Your task to perform on an android device: read, delete, or share a saved page in the chrome app Image 0: 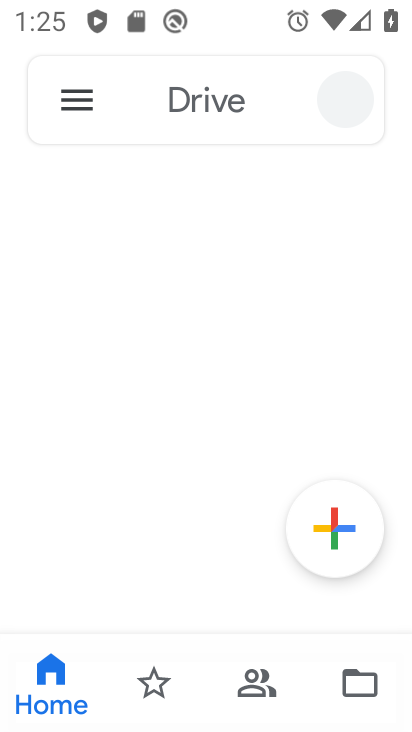
Step 0: click (251, 533)
Your task to perform on an android device: read, delete, or share a saved page in the chrome app Image 1: 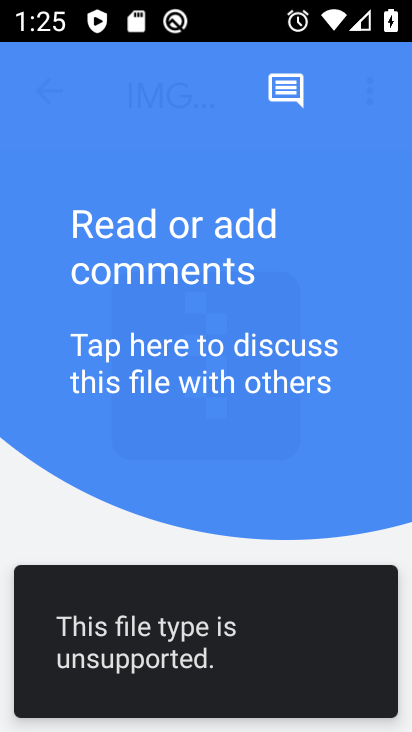
Step 1: press home button
Your task to perform on an android device: read, delete, or share a saved page in the chrome app Image 2: 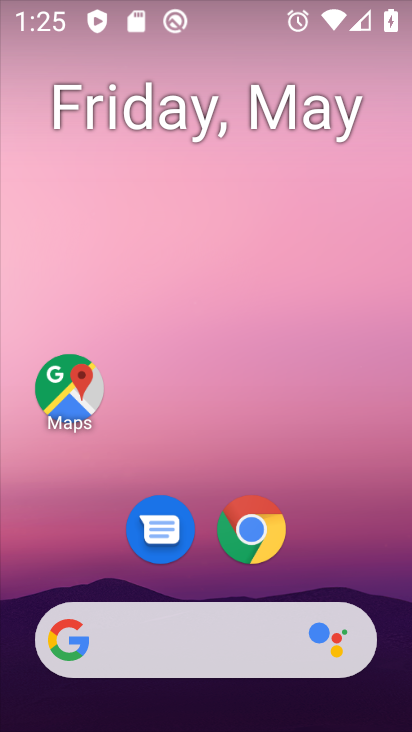
Step 2: click (248, 530)
Your task to perform on an android device: read, delete, or share a saved page in the chrome app Image 3: 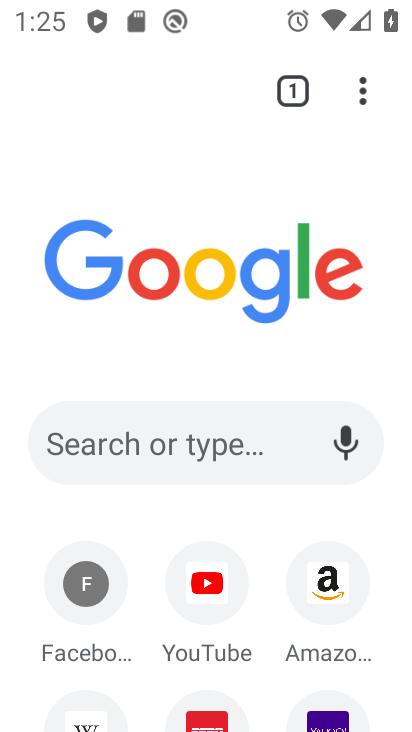
Step 3: click (361, 82)
Your task to perform on an android device: read, delete, or share a saved page in the chrome app Image 4: 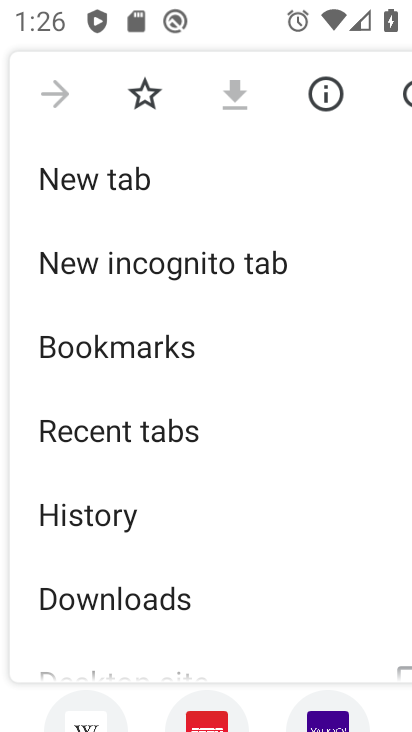
Step 4: drag from (284, 601) to (298, 427)
Your task to perform on an android device: read, delete, or share a saved page in the chrome app Image 5: 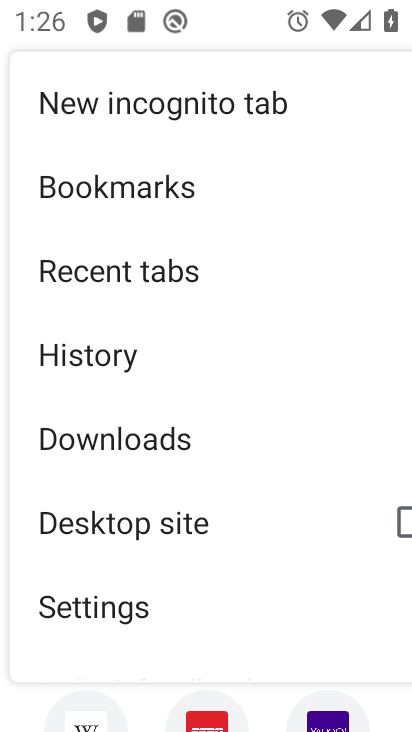
Step 5: drag from (257, 456) to (263, 401)
Your task to perform on an android device: read, delete, or share a saved page in the chrome app Image 6: 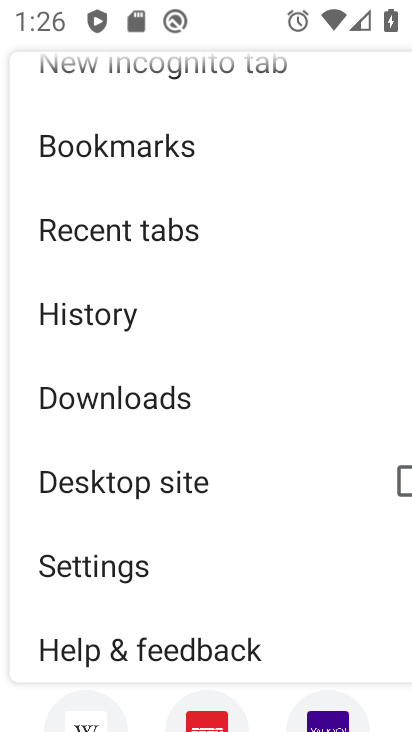
Step 6: click (88, 394)
Your task to perform on an android device: read, delete, or share a saved page in the chrome app Image 7: 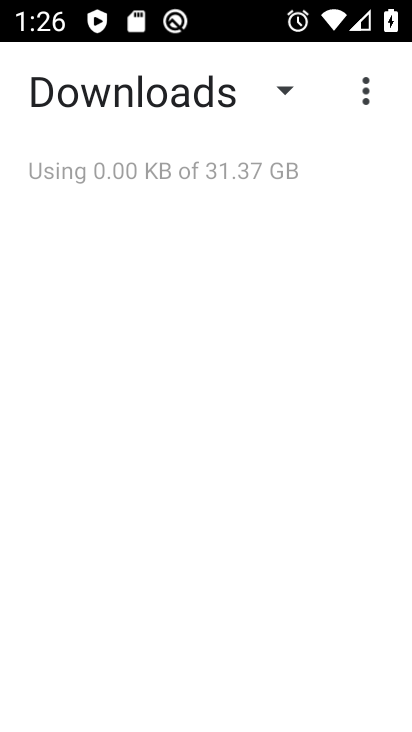
Step 7: task complete